Your task to perform on an android device: add a label to a message in the gmail app Image 0: 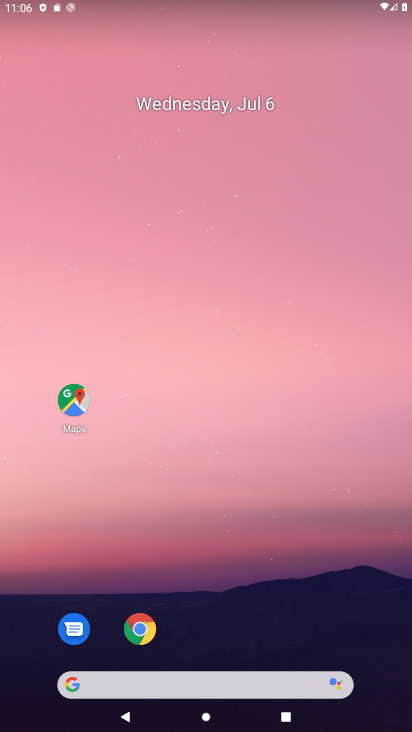
Step 0: drag from (365, 631) to (362, 147)
Your task to perform on an android device: add a label to a message in the gmail app Image 1: 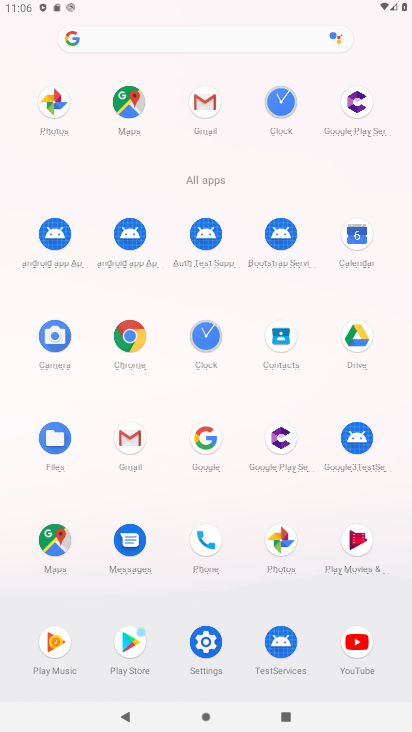
Step 1: click (138, 438)
Your task to perform on an android device: add a label to a message in the gmail app Image 2: 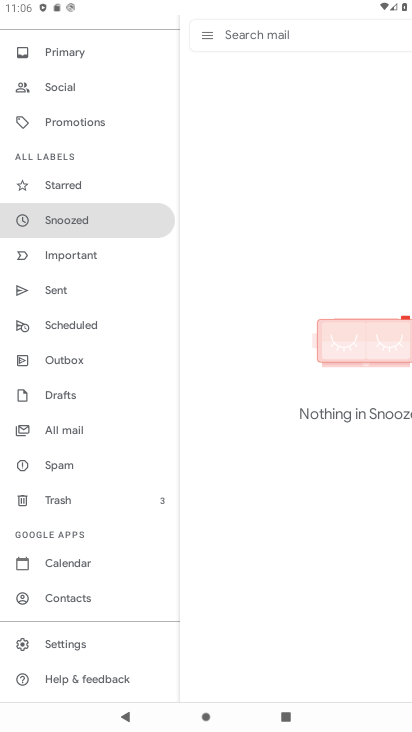
Step 2: click (79, 59)
Your task to perform on an android device: add a label to a message in the gmail app Image 3: 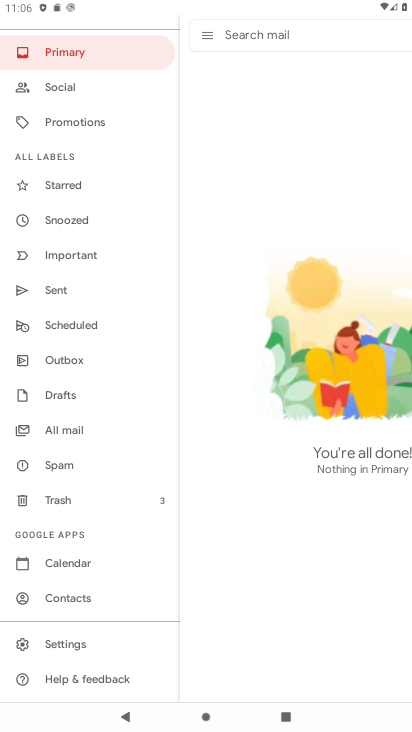
Step 3: task complete